Your task to perform on an android device: move an email to a new category in the gmail app Image 0: 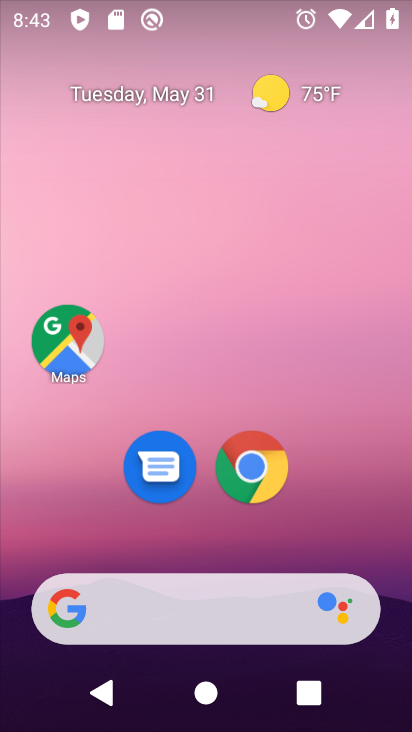
Step 0: drag from (192, 571) to (203, 166)
Your task to perform on an android device: move an email to a new category in the gmail app Image 1: 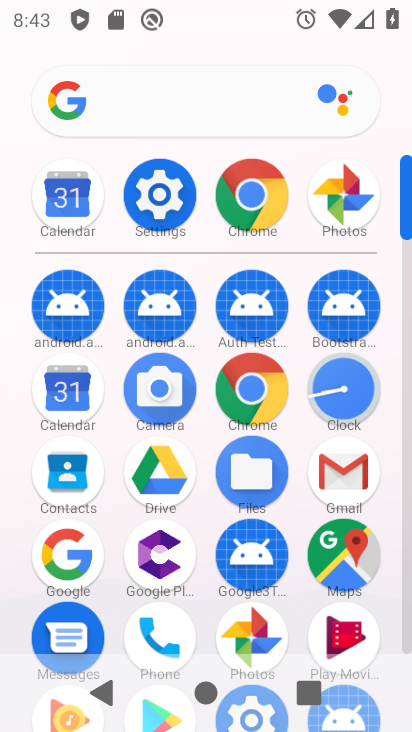
Step 1: click (354, 493)
Your task to perform on an android device: move an email to a new category in the gmail app Image 2: 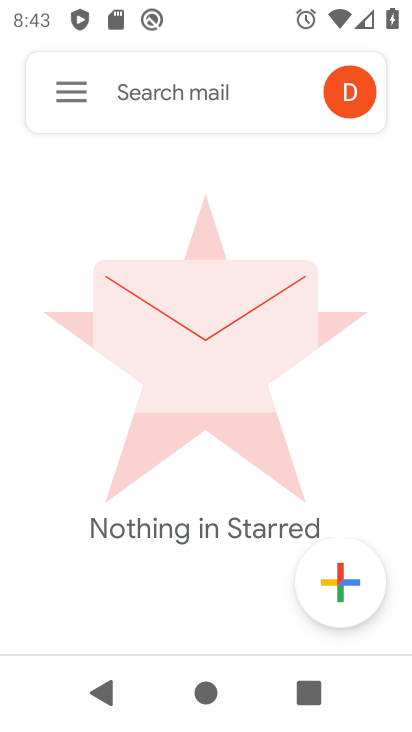
Step 2: click (77, 78)
Your task to perform on an android device: move an email to a new category in the gmail app Image 3: 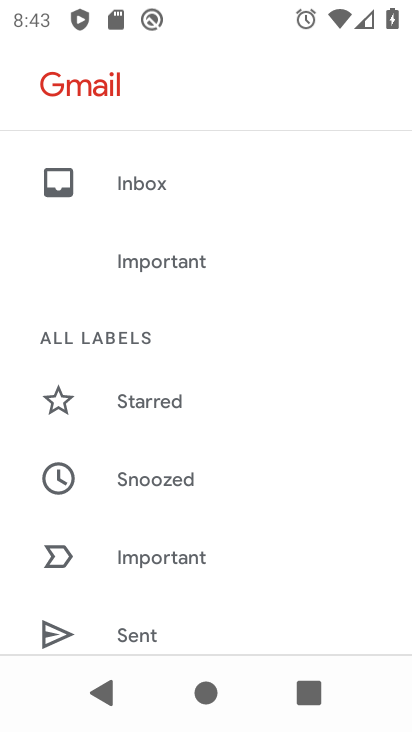
Step 3: task complete